Your task to perform on an android device: uninstall "Clock" Image 0: 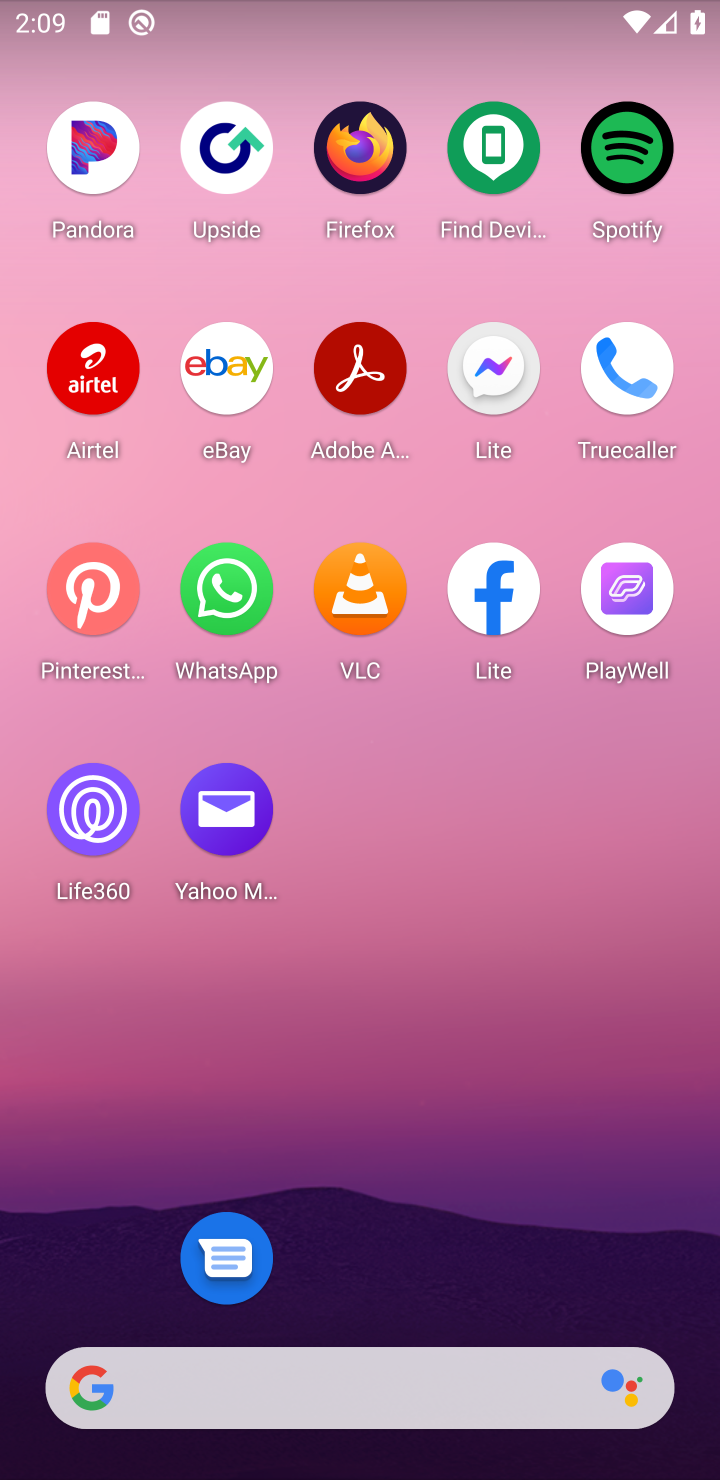
Step 0: drag from (370, 1276) to (410, 648)
Your task to perform on an android device: uninstall "Clock" Image 1: 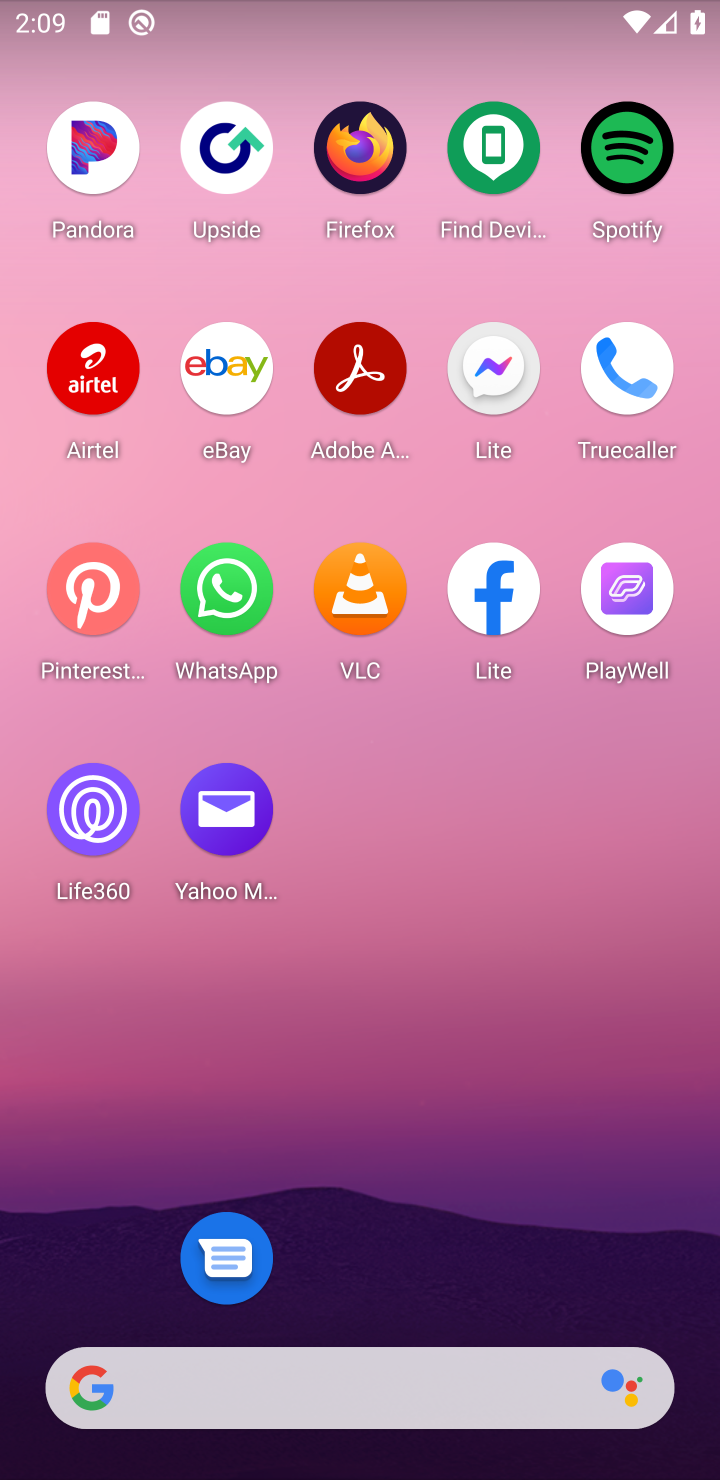
Step 1: click (436, 919)
Your task to perform on an android device: uninstall "Clock" Image 2: 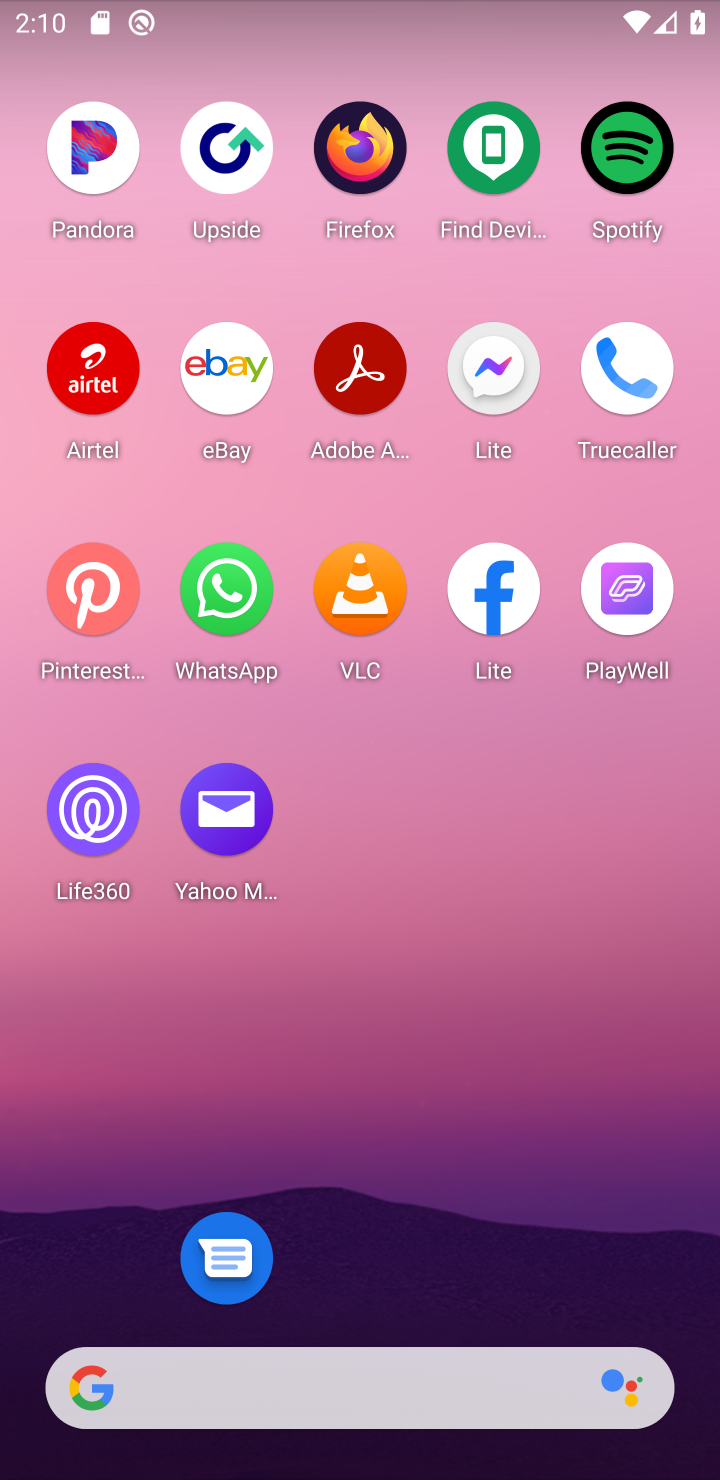
Step 2: drag from (365, 1097) to (374, 486)
Your task to perform on an android device: uninstall "Clock" Image 3: 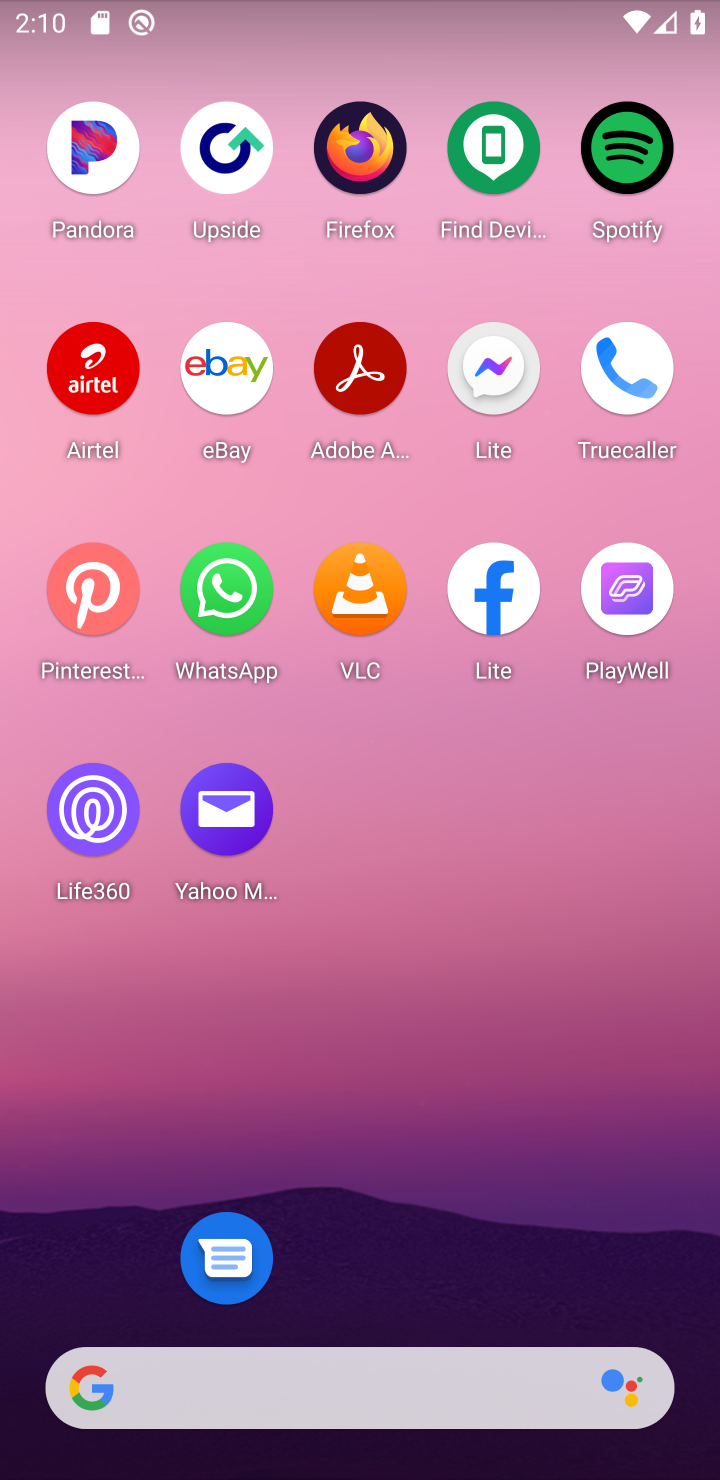
Step 3: drag from (309, 1390) to (363, 619)
Your task to perform on an android device: uninstall "Clock" Image 4: 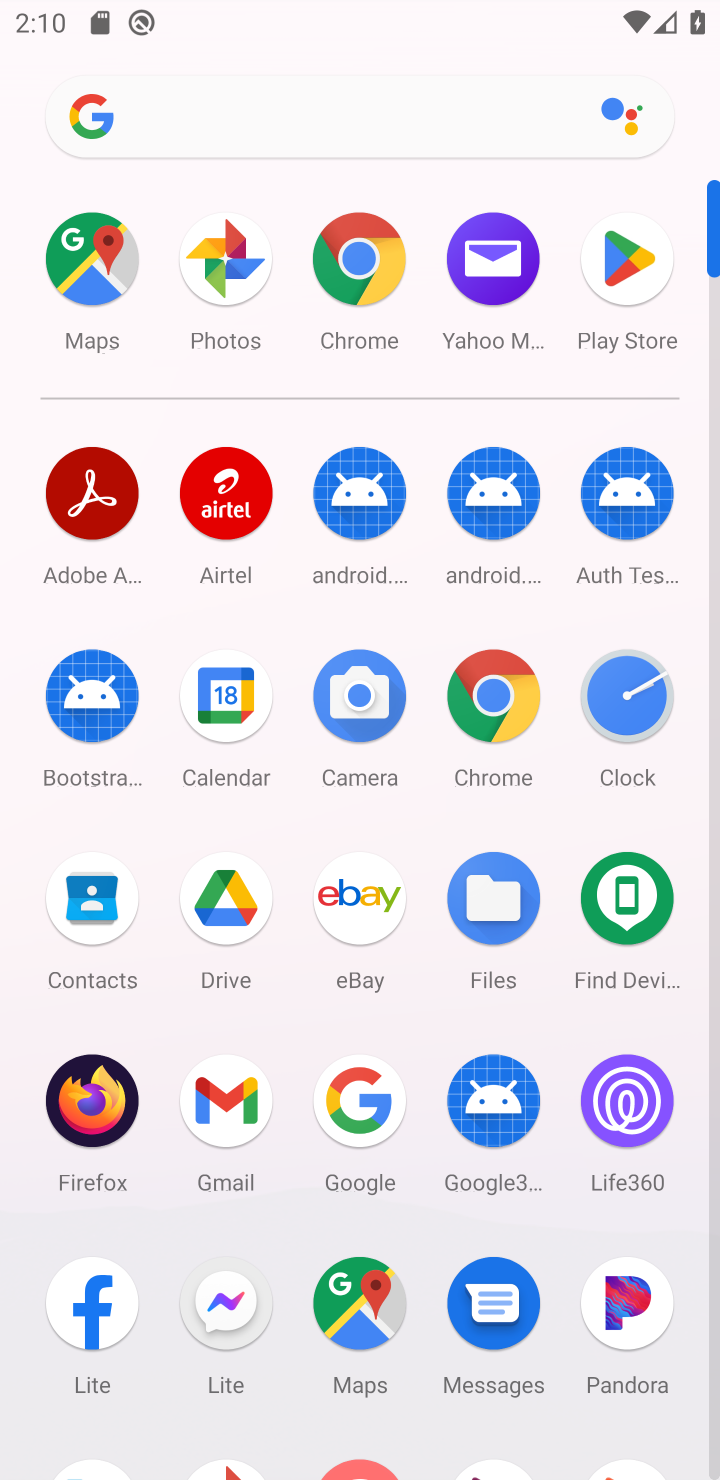
Step 4: click (630, 228)
Your task to perform on an android device: uninstall "Clock" Image 5: 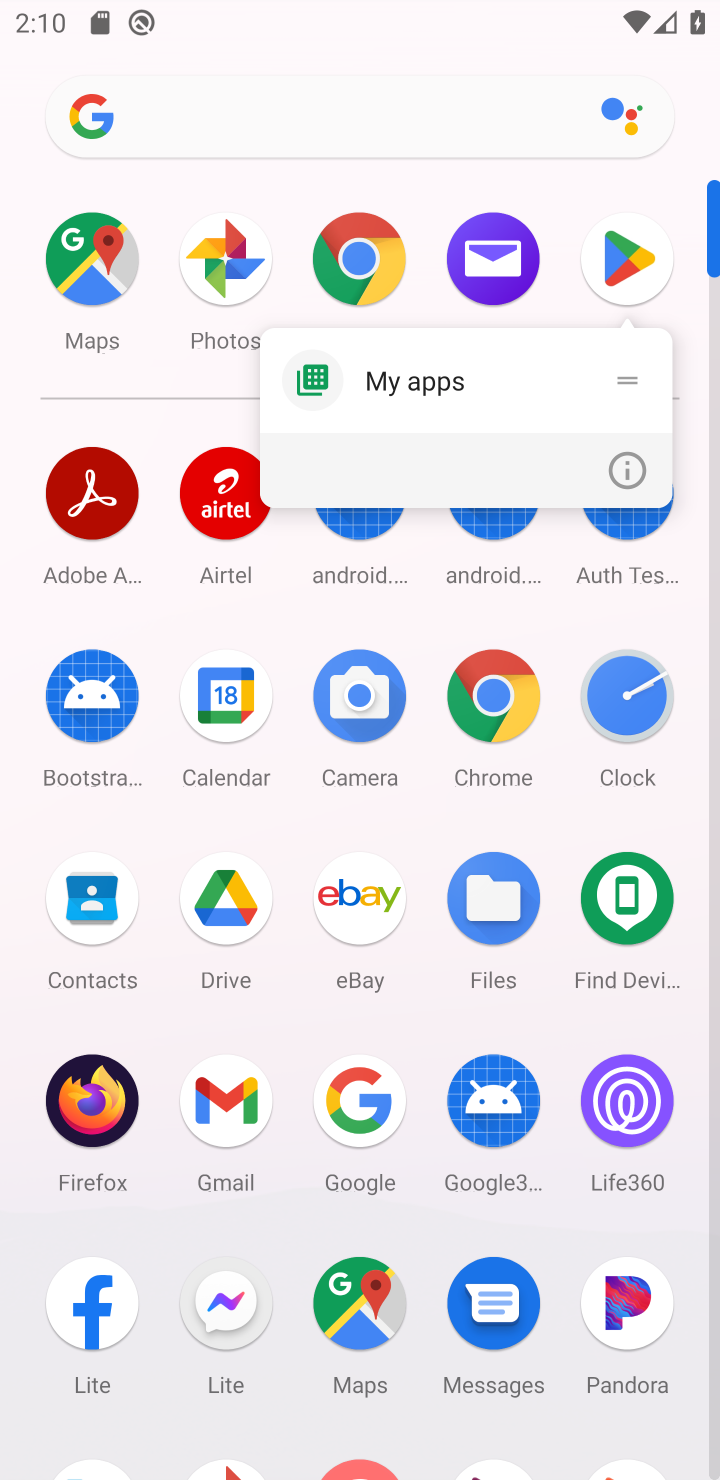
Step 5: click (606, 273)
Your task to perform on an android device: uninstall "Clock" Image 6: 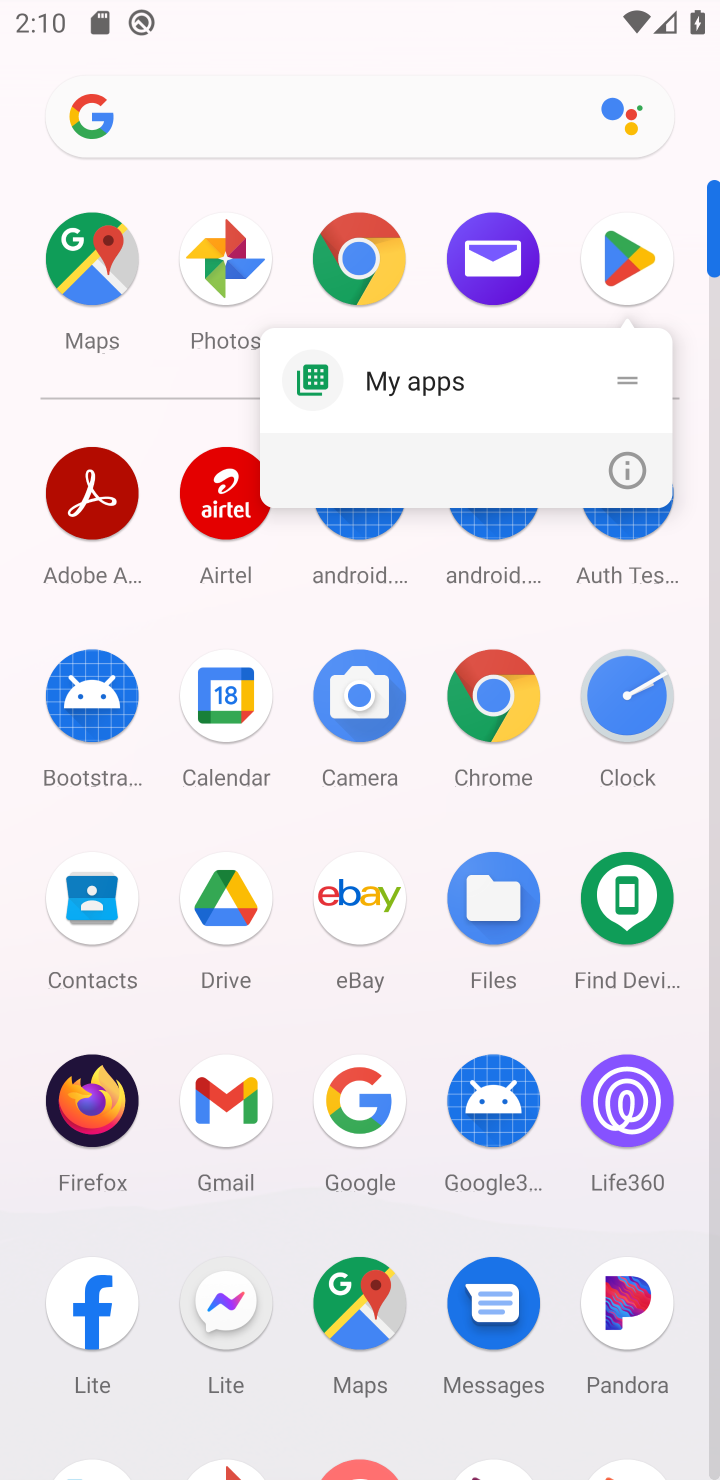
Step 6: click (606, 277)
Your task to perform on an android device: uninstall "Clock" Image 7: 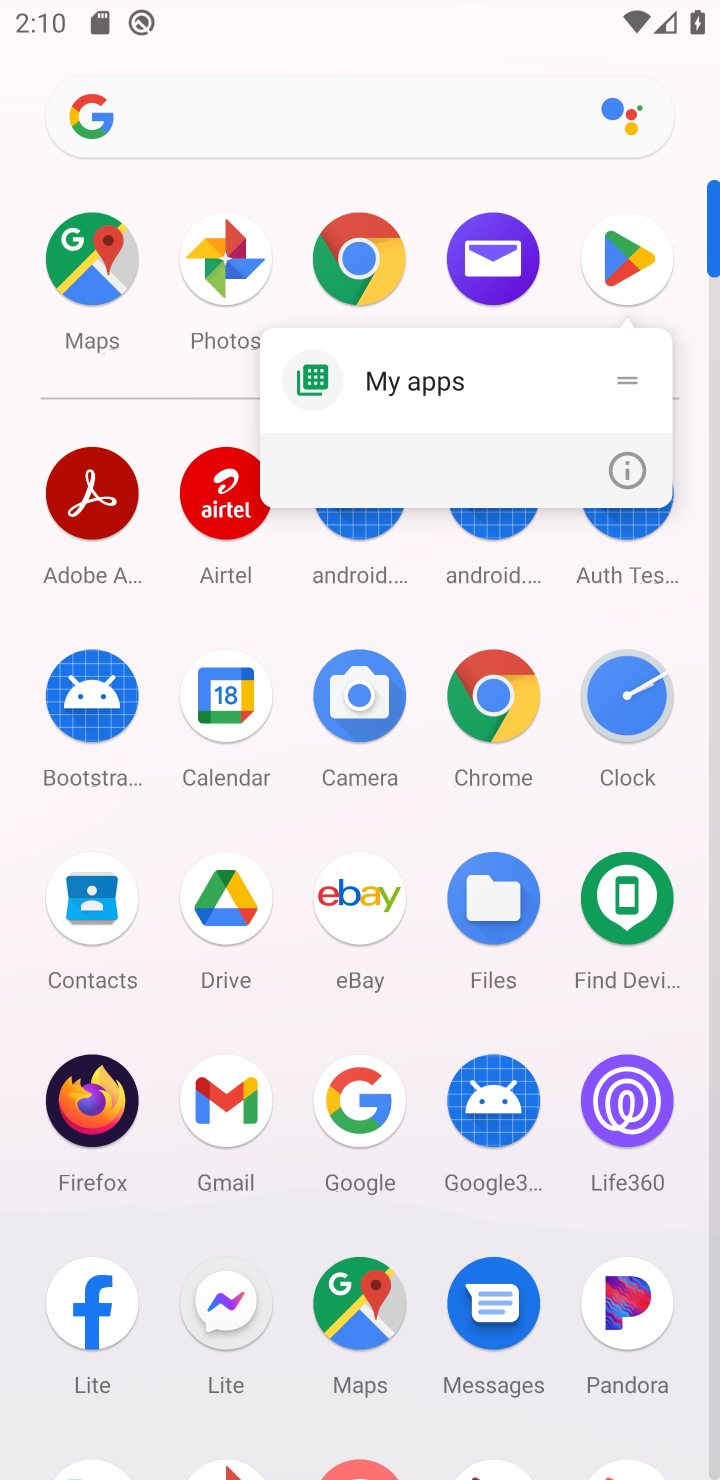
Step 7: click (610, 242)
Your task to perform on an android device: uninstall "Clock" Image 8: 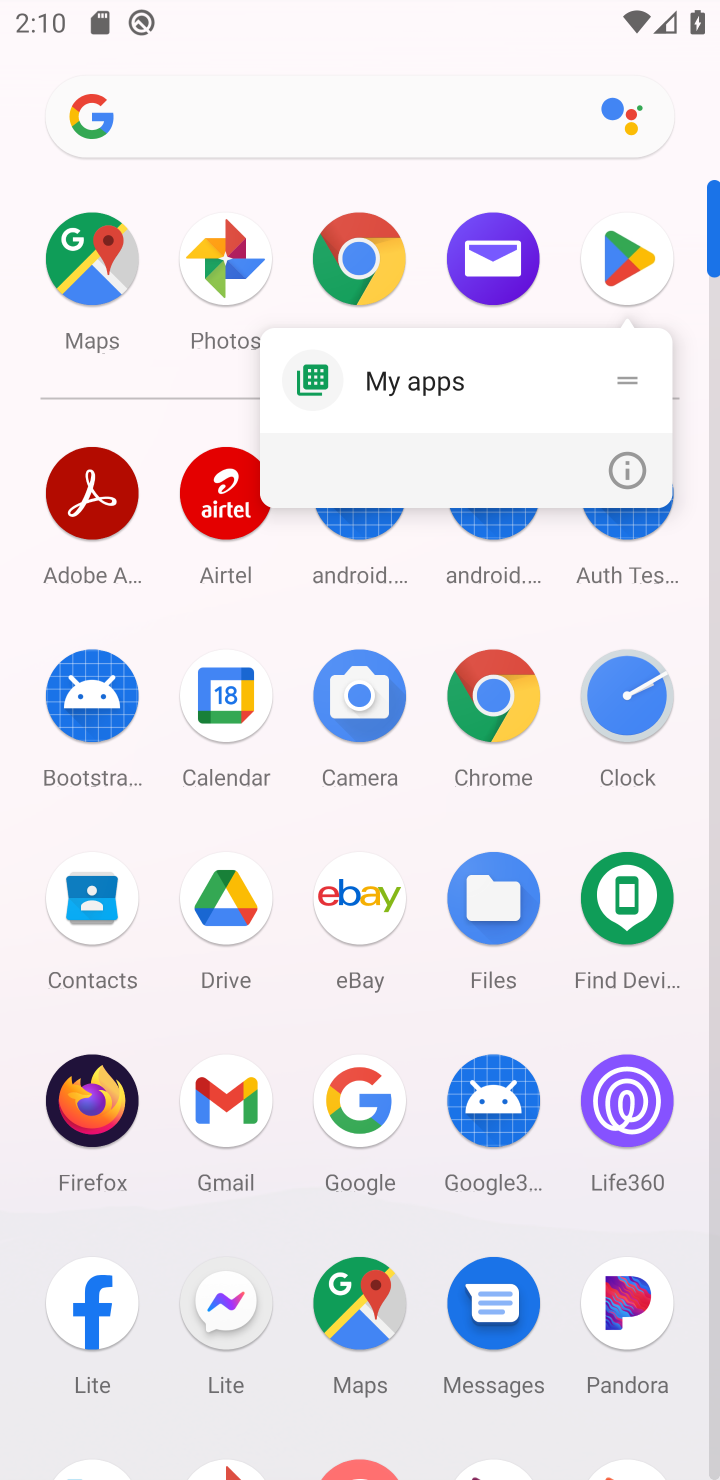
Step 8: task complete